Your task to perform on an android device: Go to location settings Image 0: 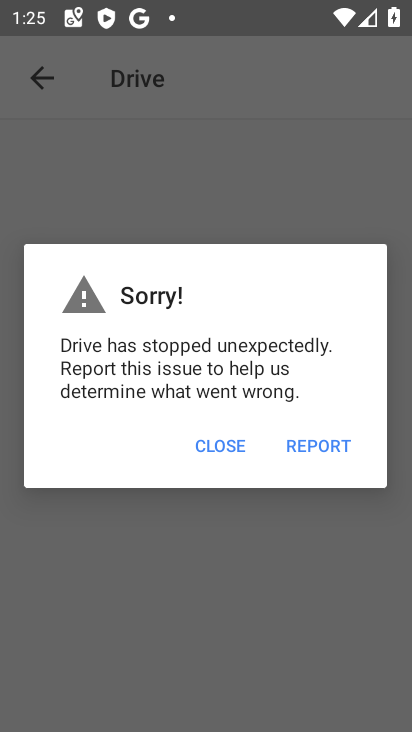
Step 0: press home button
Your task to perform on an android device: Go to location settings Image 1: 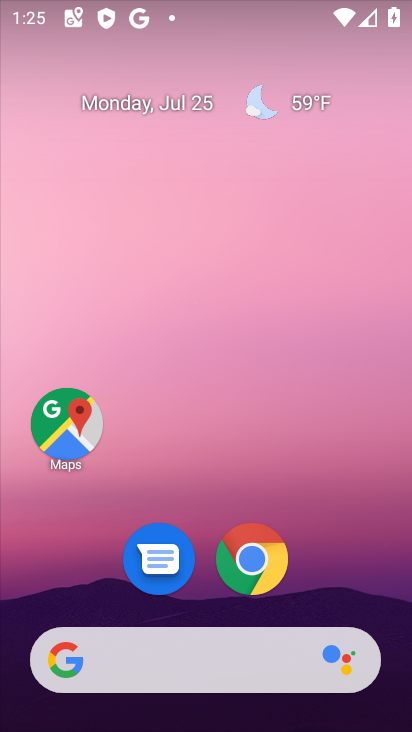
Step 1: drag from (102, 547) to (226, 7)
Your task to perform on an android device: Go to location settings Image 2: 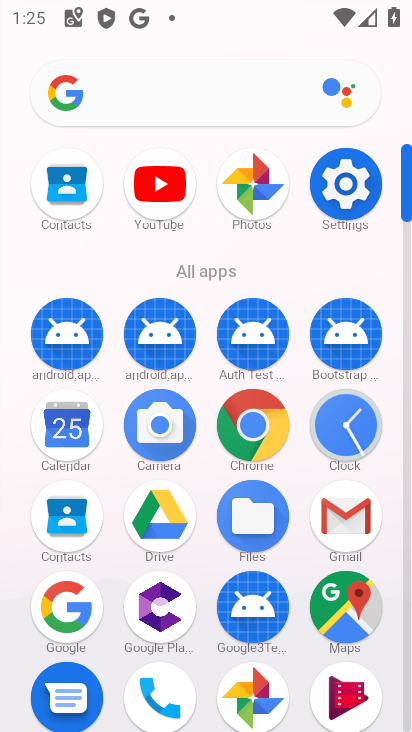
Step 2: click (347, 175)
Your task to perform on an android device: Go to location settings Image 3: 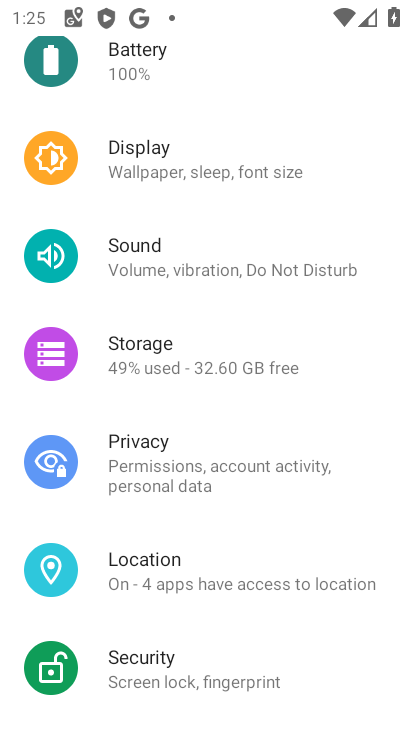
Step 3: click (182, 571)
Your task to perform on an android device: Go to location settings Image 4: 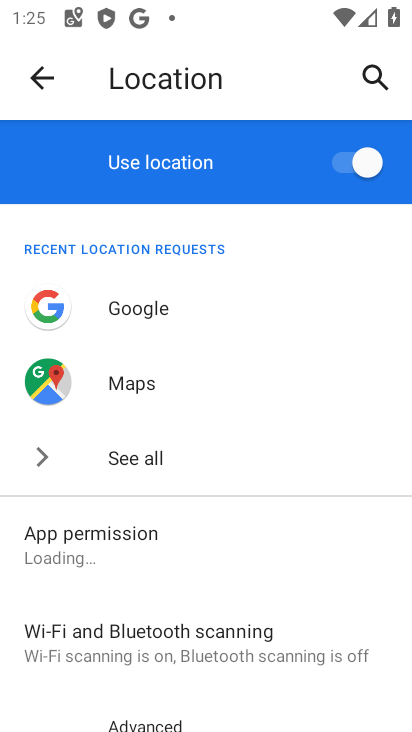
Step 4: task complete